Your task to perform on an android device: uninstall "Google Sheets" Image 0: 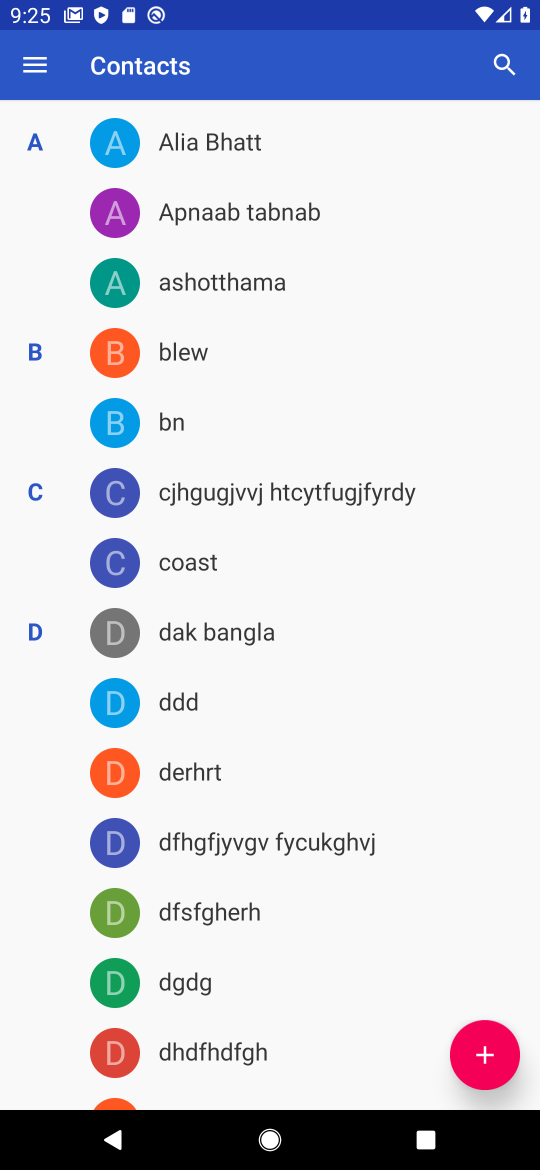
Step 0: press back button
Your task to perform on an android device: uninstall "Google Sheets" Image 1: 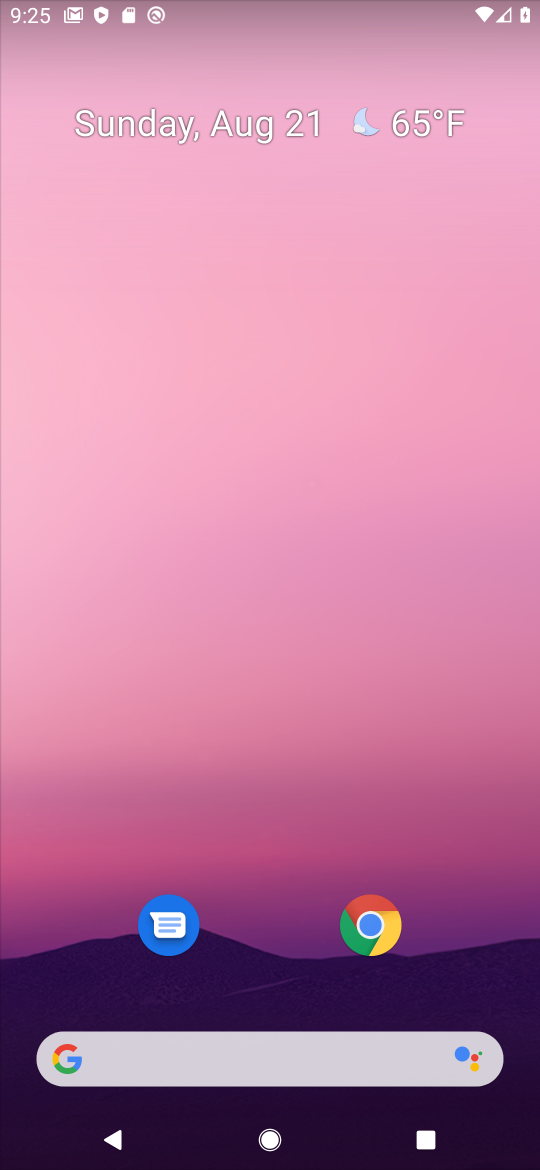
Step 1: drag from (263, 908) to (275, 174)
Your task to perform on an android device: uninstall "Google Sheets" Image 2: 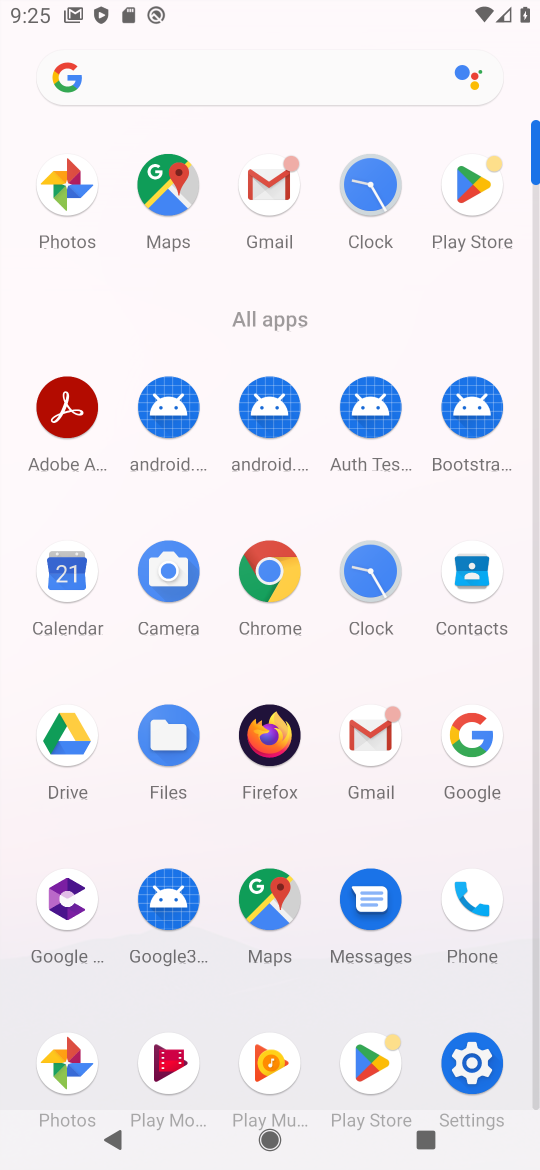
Step 2: click (479, 182)
Your task to perform on an android device: uninstall "Google Sheets" Image 3: 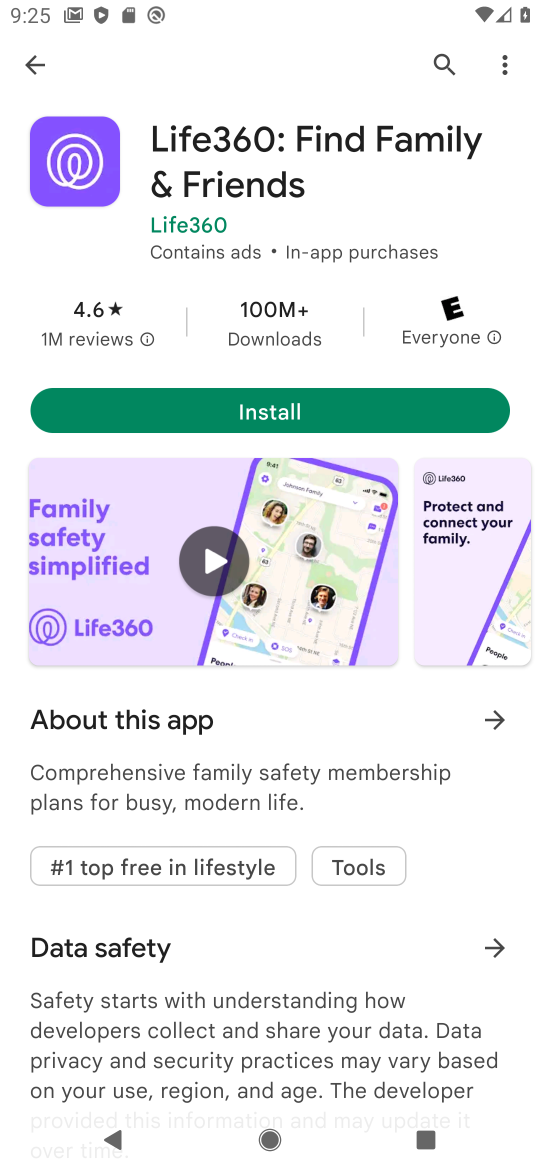
Step 3: click (443, 72)
Your task to perform on an android device: uninstall "Google Sheets" Image 4: 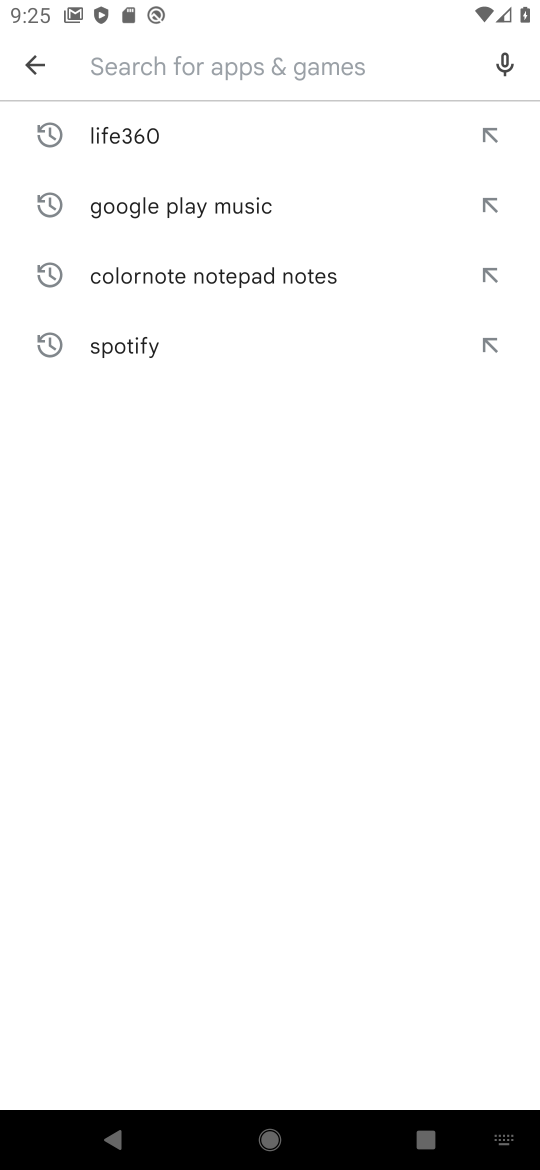
Step 4: type "Google Sheets"
Your task to perform on an android device: uninstall "Google Sheets" Image 5: 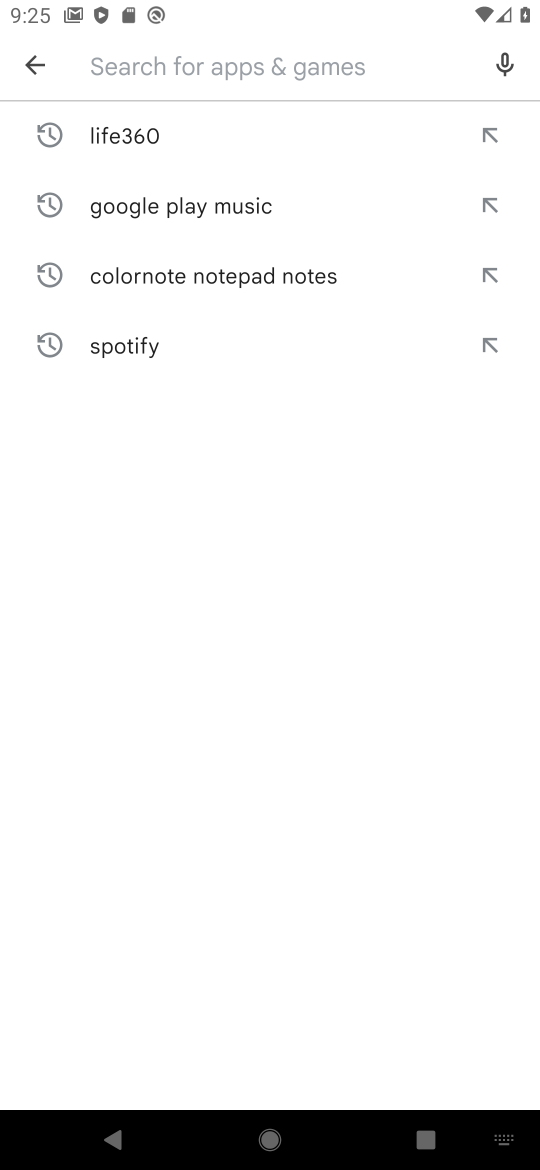
Step 5: click (152, 757)
Your task to perform on an android device: uninstall "Google Sheets" Image 6: 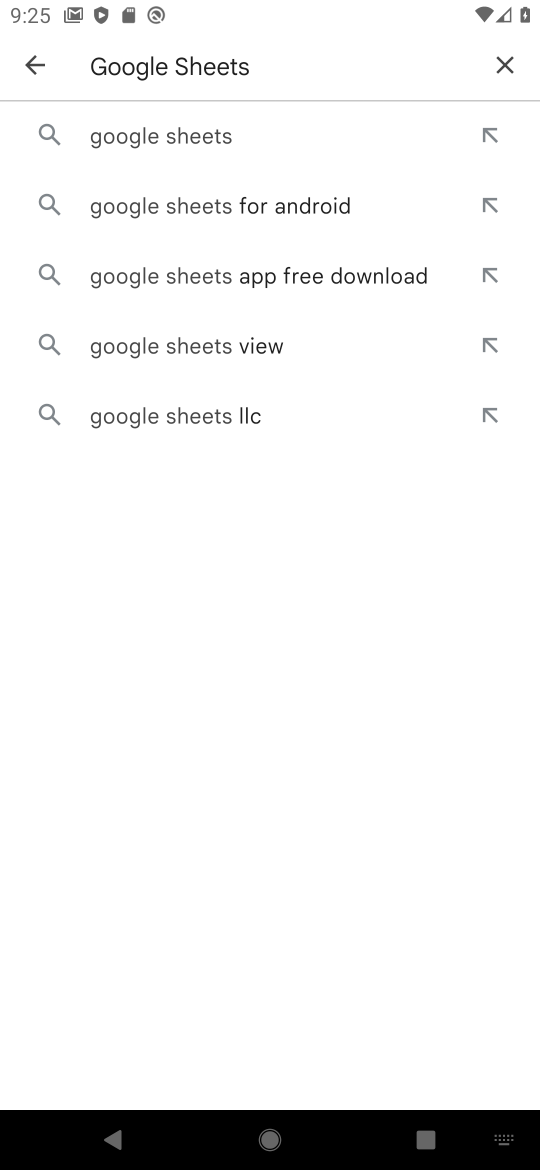
Step 6: click (205, 132)
Your task to perform on an android device: uninstall "Google Sheets" Image 7: 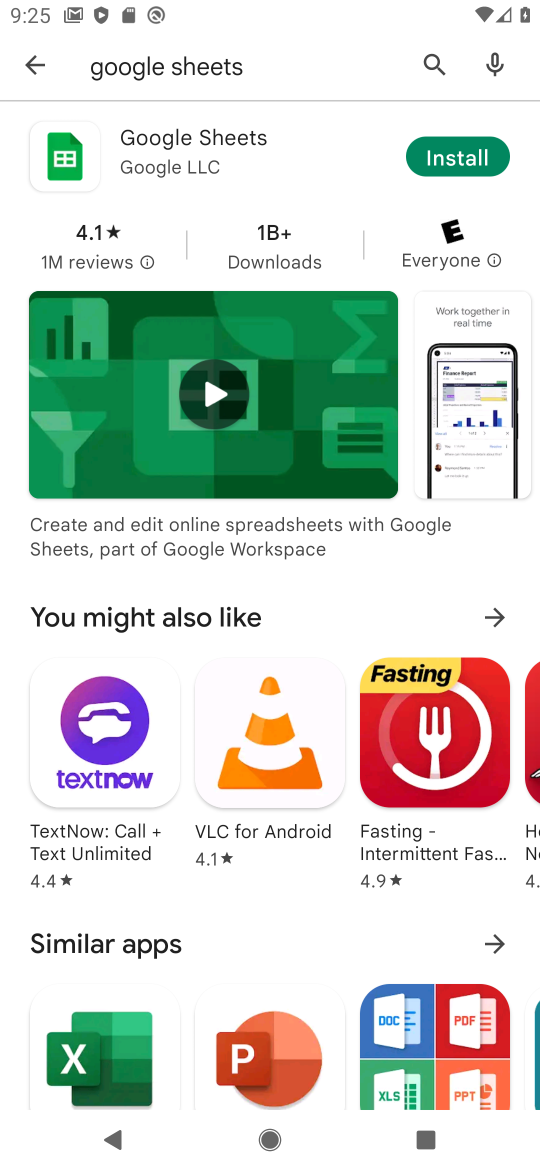
Step 7: task complete